Your task to perform on an android device: check data usage Image 0: 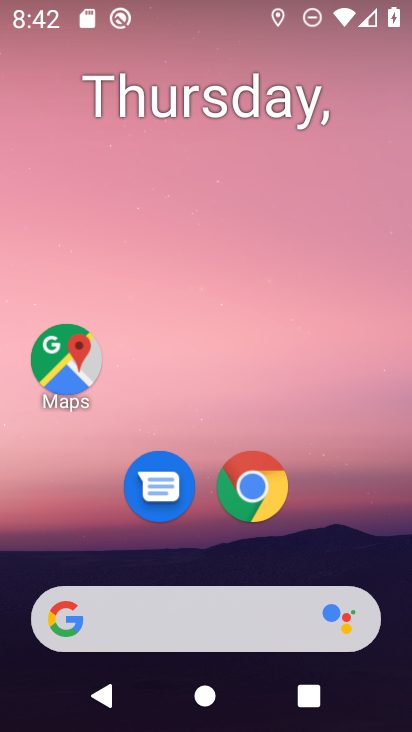
Step 0: drag from (153, 544) to (169, 0)
Your task to perform on an android device: check data usage Image 1: 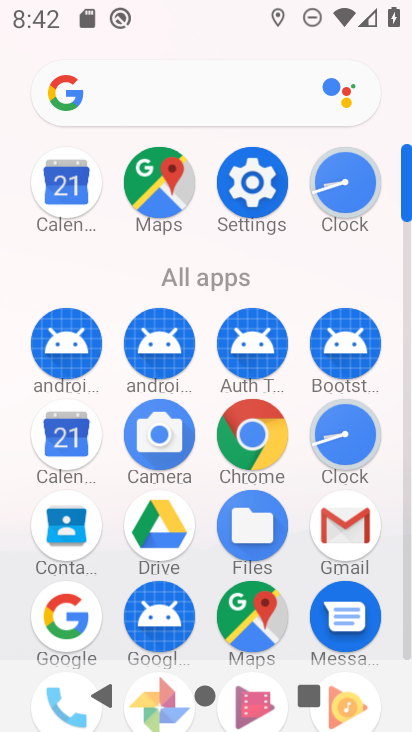
Step 1: click (241, 176)
Your task to perform on an android device: check data usage Image 2: 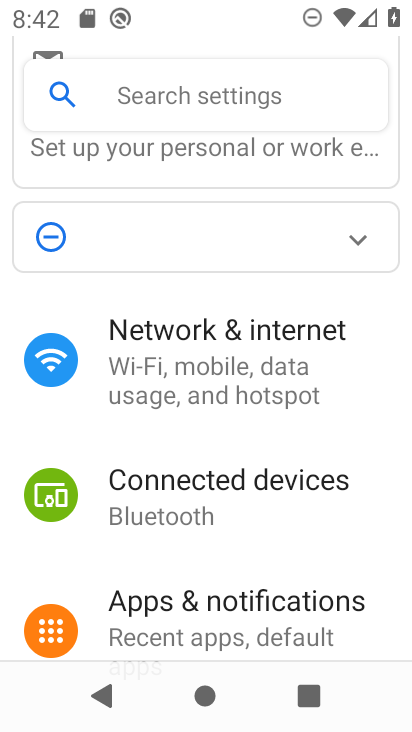
Step 2: drag from (222, 589) to (276, 261)
Your task to perform on an android device: check data usage Image 3: 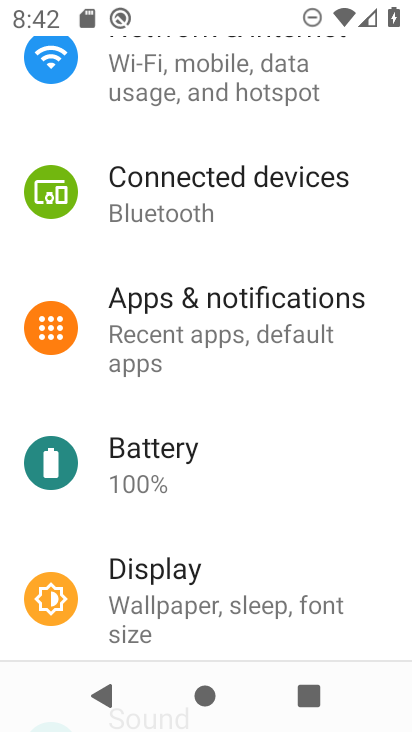
Step 3: click (237, 94)
Your task to perform on an android device: check data usage Image 4: 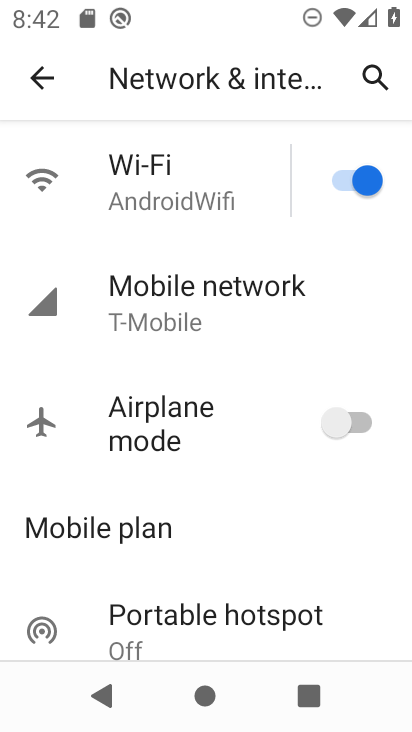
Step 4: click (157, 292)
Your task to perform on an android device: check data usage Image 5: 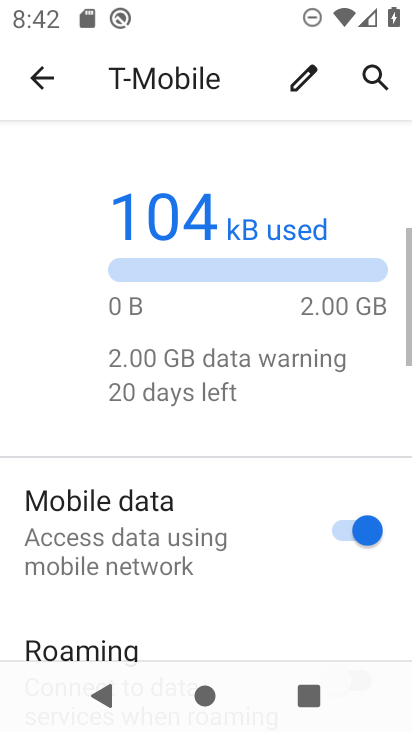
Step 5: drag from (123, 590) to (252, 107)
Your task to perform on an android device: check data usage Image 6: 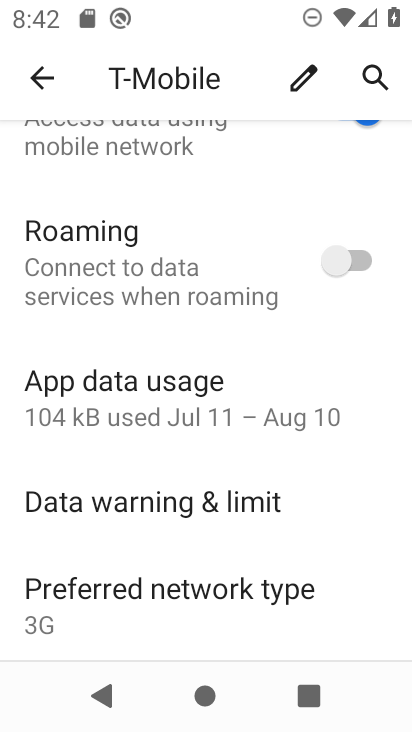
Step 6: click (135, 390)
Your task to perform on an android device: check data usage Image 7: 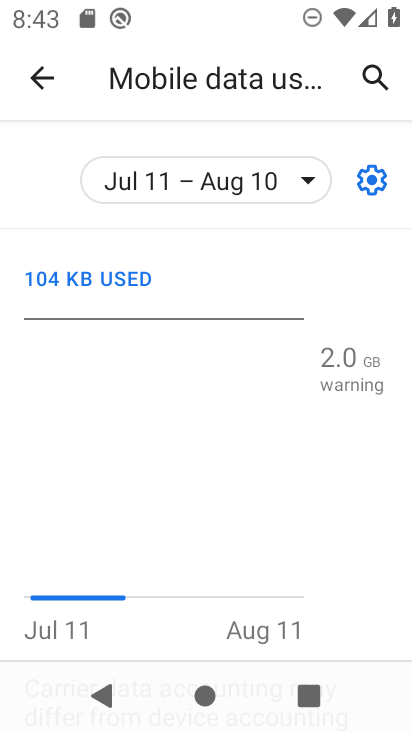
Step 7: task complete